Your task to perform on an android device: Search for Italian restaurants on Maps Image 0: 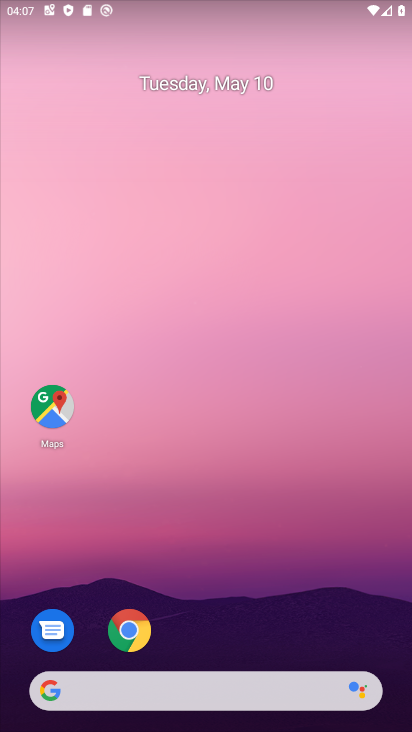
Step 0: click (46, 404)
Your task to perform on an android device: Search for Italian restaurants on Maps Image 1: 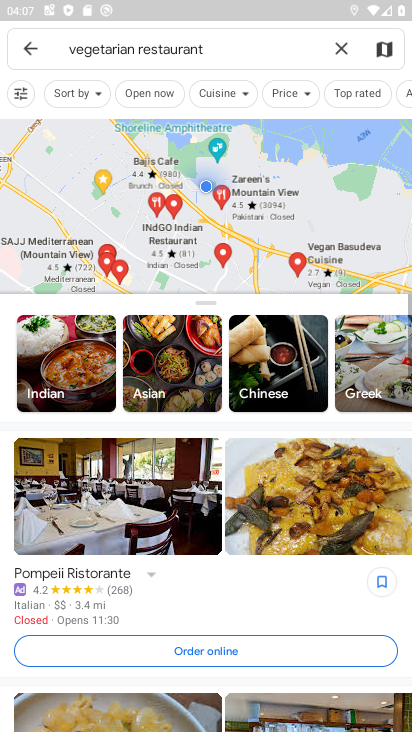
Step 1: click (342, 51)
Your task to perform on an android device: Search for Italian restaurants on Maps Image 2: 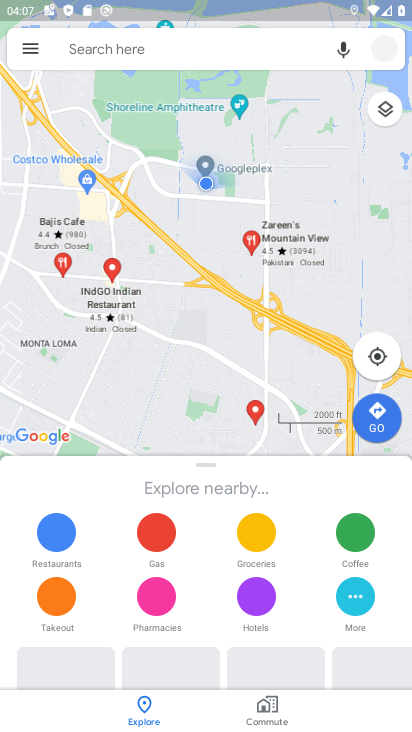
Step 2: click (266, 43)
Your task to perform on an android device: Search for Italian restaurants on Maps Image 3: 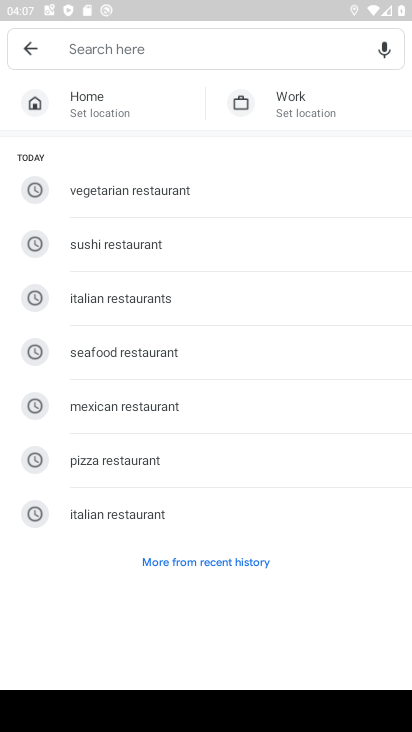
Step 3: click (145, 300)
Your task to perform on an android device: Search for Italian restaurants on Maps Image 4: 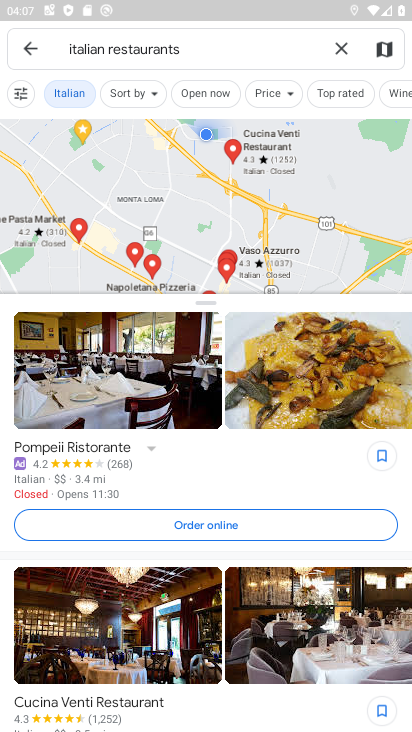
Step 4: task complete